Your task to perform on an android device: read, delete, or share a saved page in the chrome app Image 0: 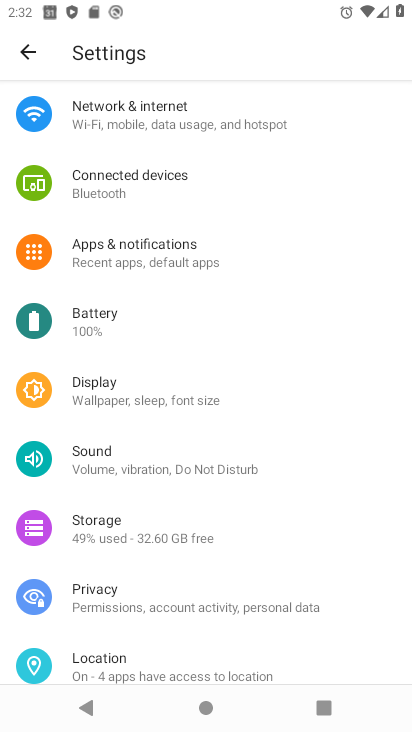
Step 0: press home button
Your task to perform on an android device: read, delete, or share a saved page in the chrome app Image 1: 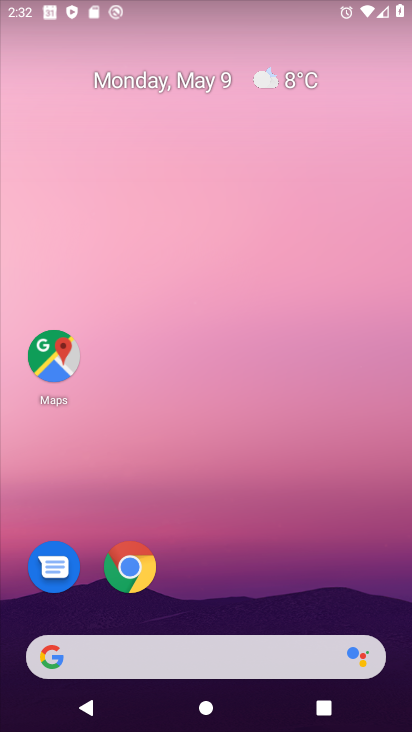
Step 1: drag from (326, 468) to (335, 267)
Your task to perform on an android device: read, delete, or share a saved page in the chrome app Image 2: 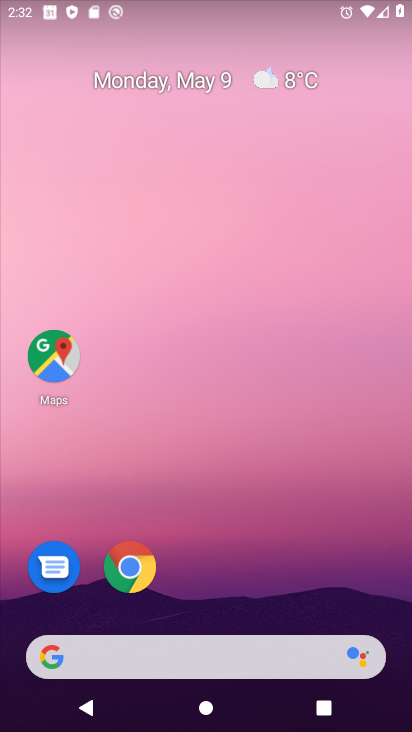
Step 2: drag from (239, 482) to (260, 331)
Your task to perform on an android device: read, delete, or share a saved page in the chrome app Image 3: 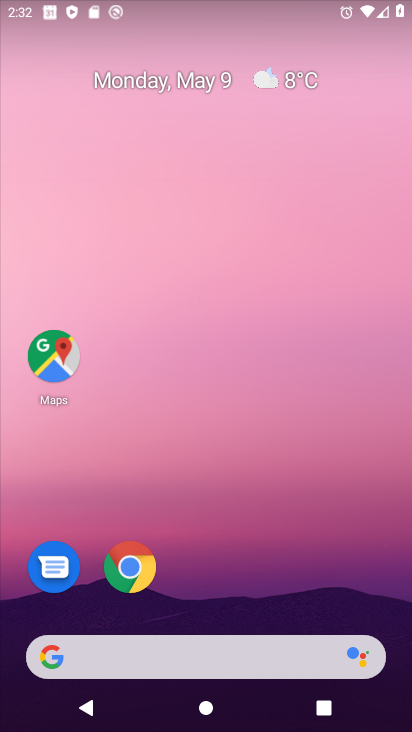
Step 3: drag from (193, 675) to (245, 244)
Your task to perform on an android device: read, delete, or share a saved page in the chrome app Image 4: 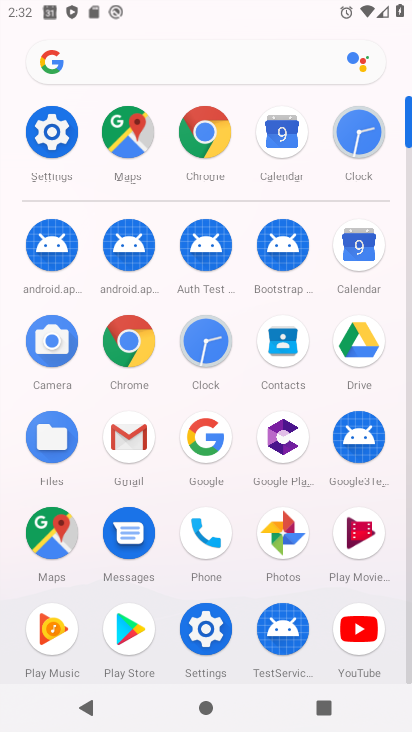
Step 4: click (126, 325)
Your task to perform on an android device: read, delete, or share a saved page in the chrome app Image 5: 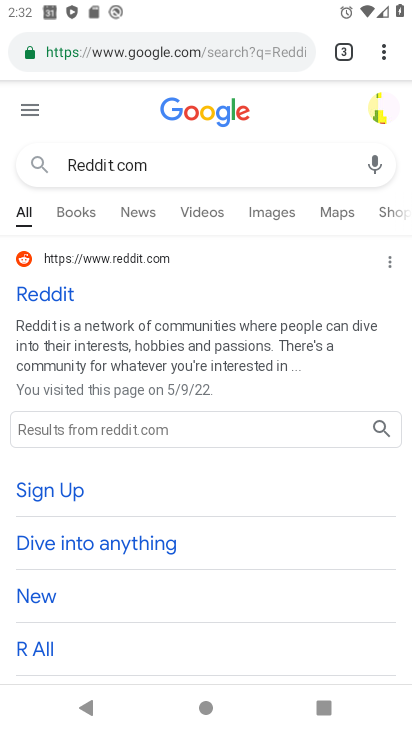
Step 5: click (373, 53)
Your task to perform on an android device: read, delete, or share a saved page in the chrome app Image 6: 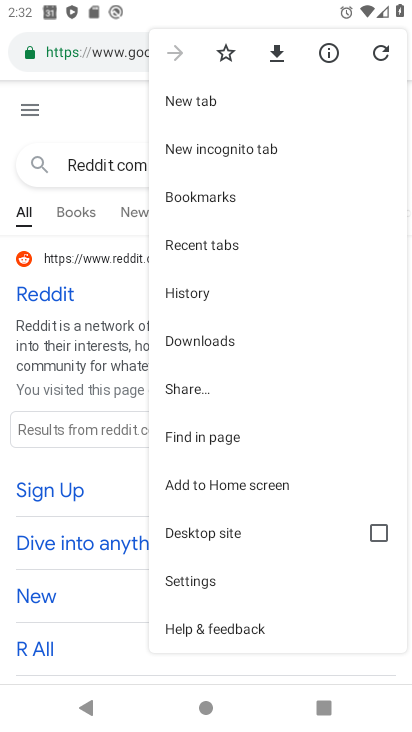
Step 6: click (220, 332)
Your task to perform on an android device: read, delete, or share a saved page in the chrome app Image 7: 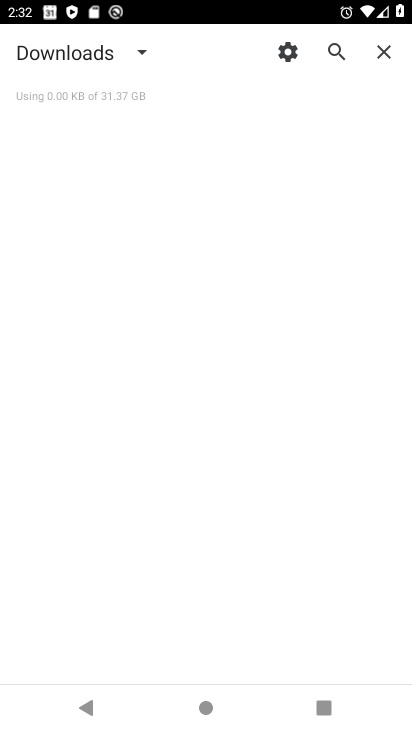
Step 7: click (132, 54)
Your task to perform on an android device: read, delete, or share a saved page in the chrome app Image 8: 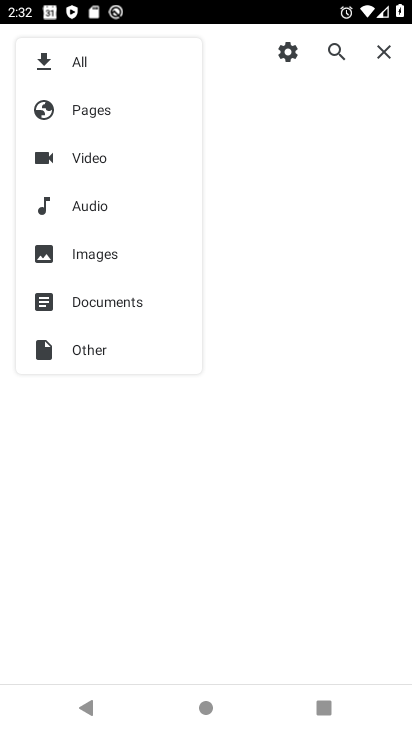
Step 8: click (83, 110)
Your task to perform on an android device: read, delete, or share a saved page in the chrome app Image 9: 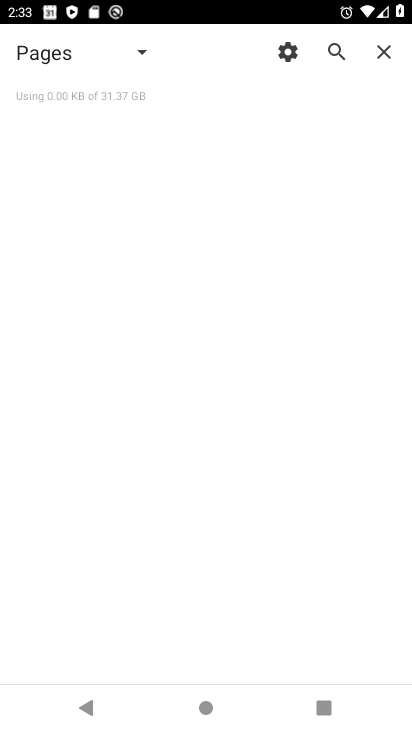
Step 9: task complete